Your task to perform on an android device: Search for macbook pro 13 inch on newegg.com, select the first entry, and add it to the cart. Image 0: 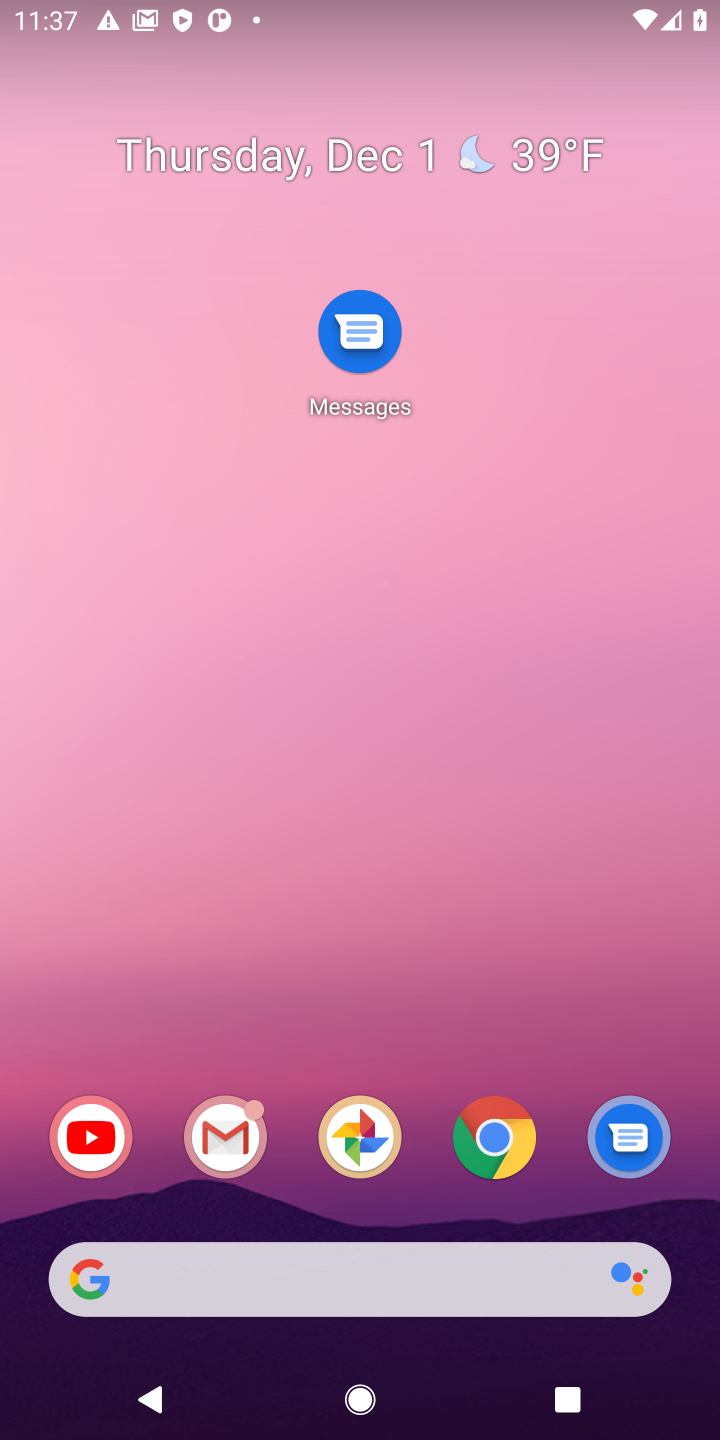
Step 0: drag from (331, 1277) to (360, 385)
Your task to perform on an android device: Search for macbook pro 13 inch on newegg.com, select the first entry, and add it to the cart. Image 1: 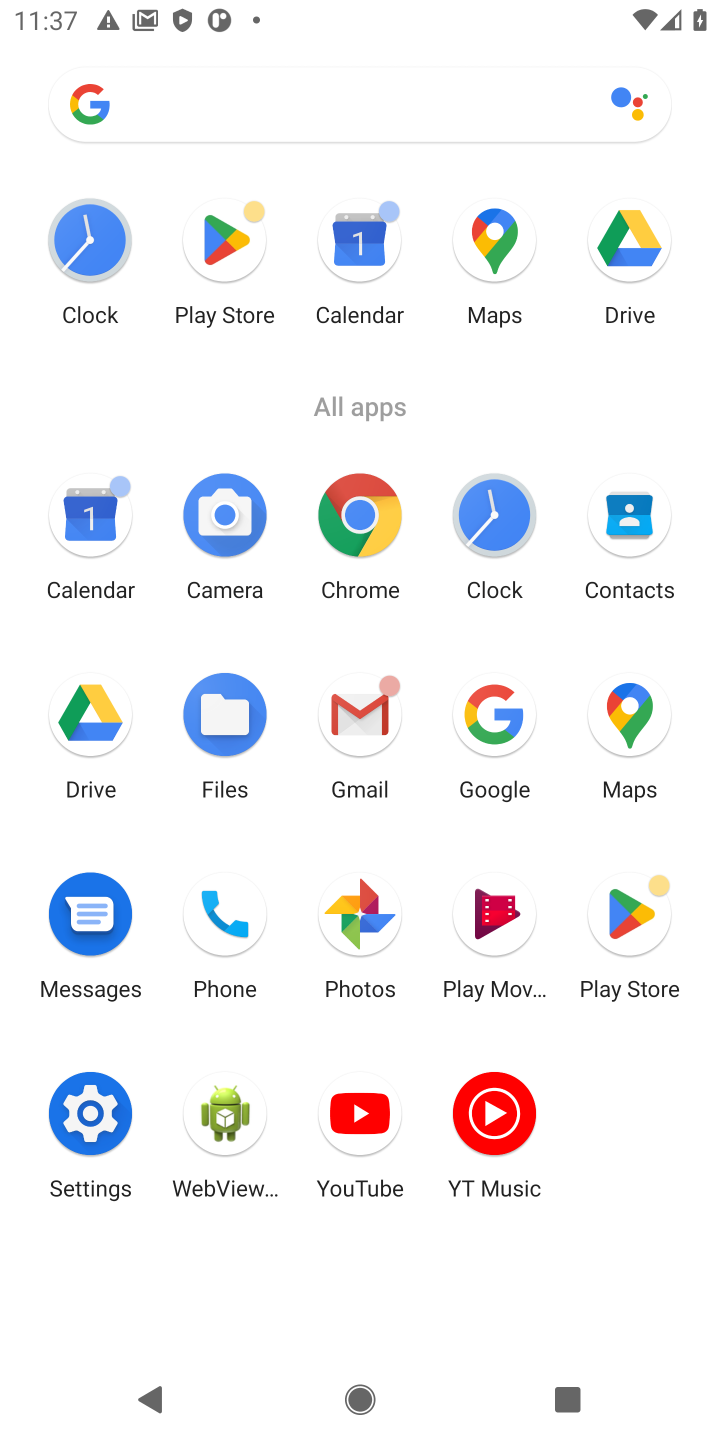
Step 1: click (505, 698)
Your task to perform on an android device: Search for macbook pro 13 inch on newegg.com, select the first entry, and add it to the cart. Image 2: 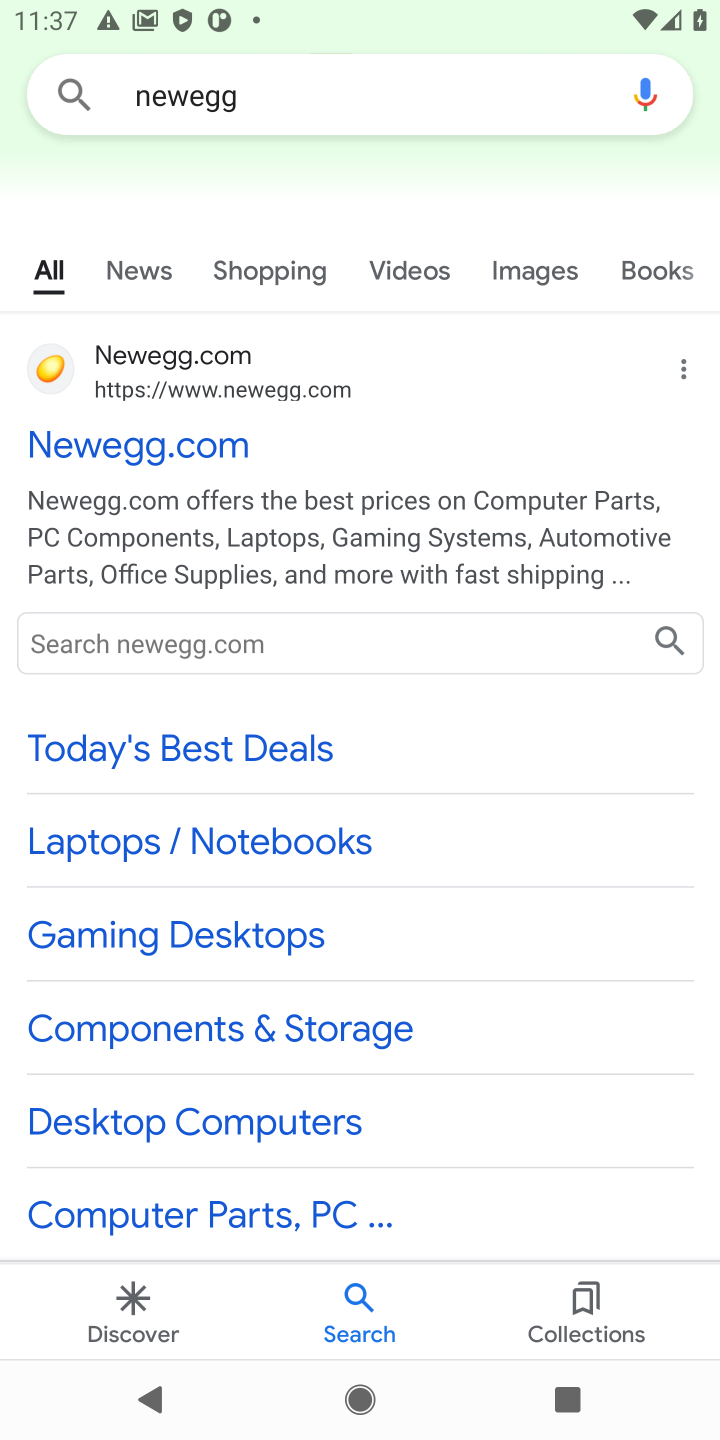
Step 2: click (107, 450)
Your task to perform on an android device: Search for macbook pro 13 inch on newegg.com, select the first entry, and add it to the cart. Image 3: 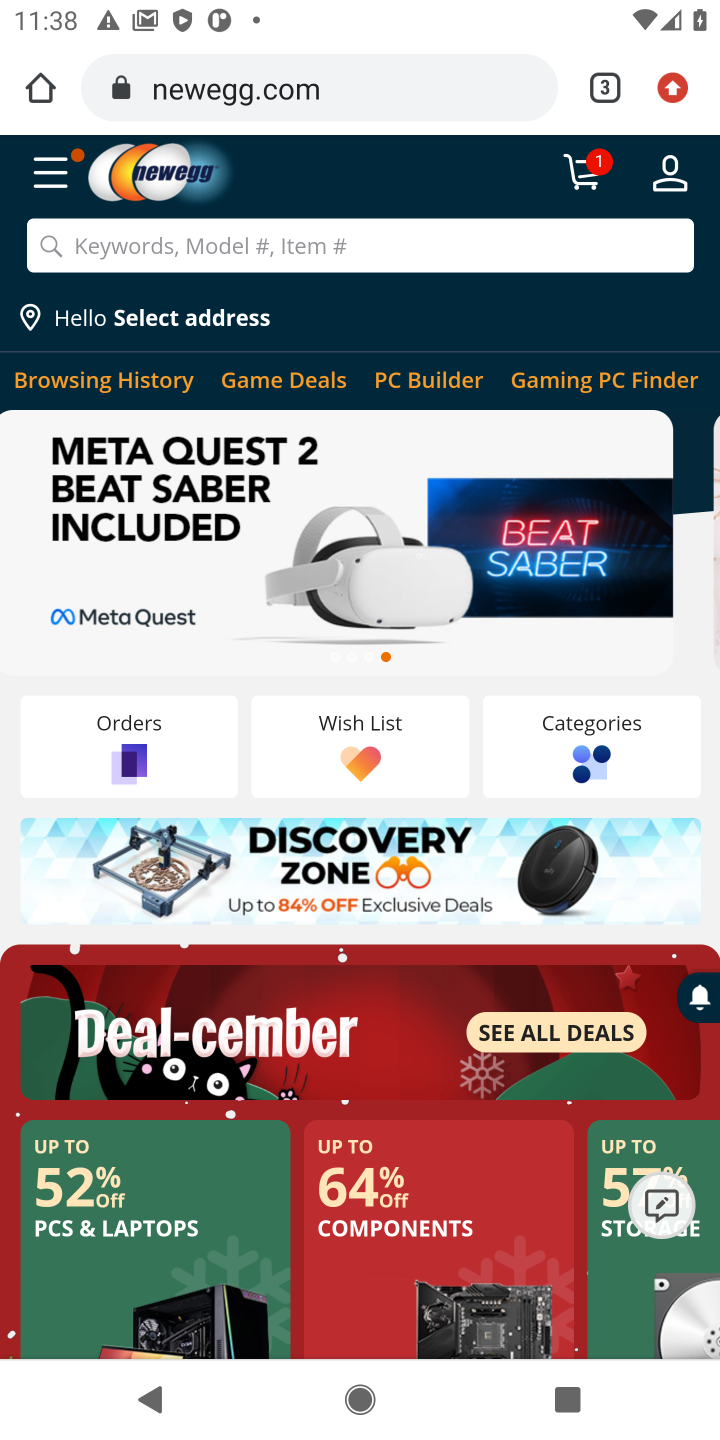
Step 3: click (103, 248)
Your task to perform on an android device: Search for macbook pro 13 inch on newegg.com, select the first entry, and add it to the cart. Image 4: 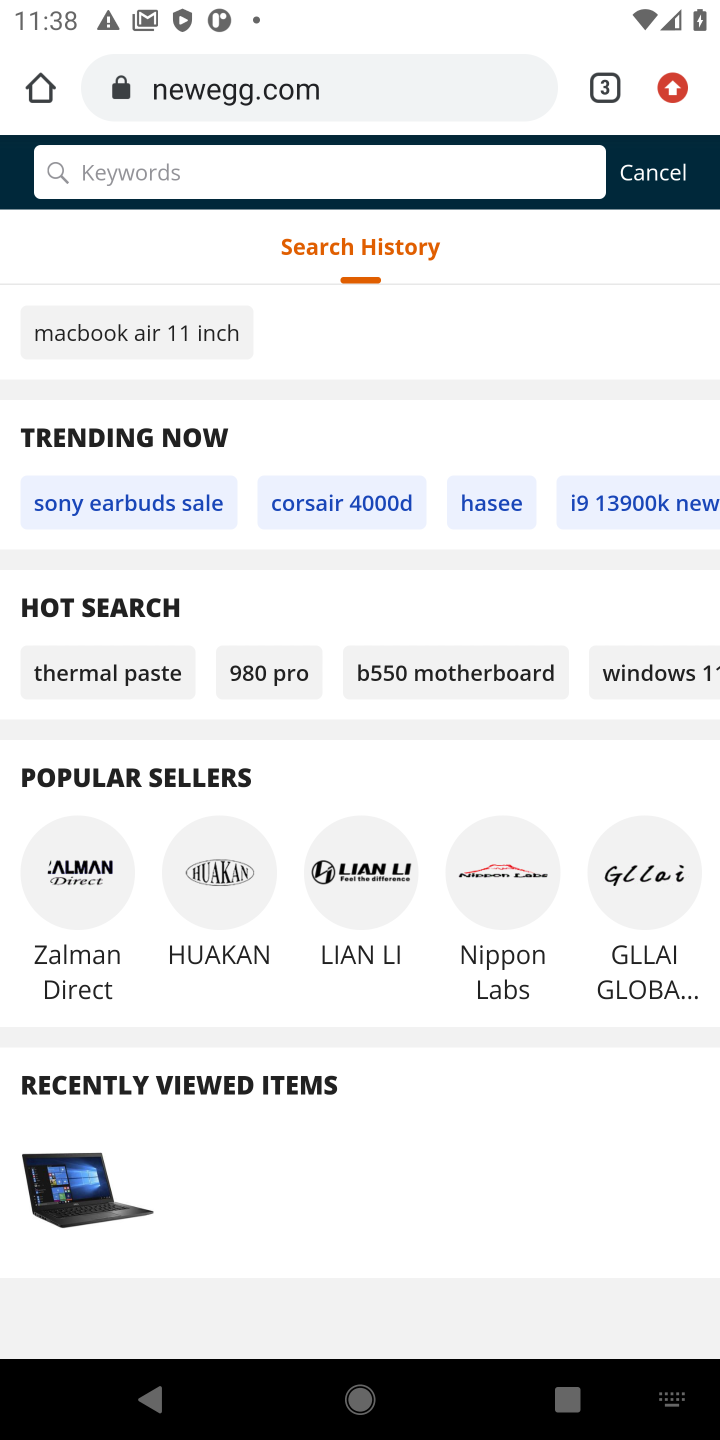
Step 4: type "macbook pro 13 inch"
Your task to perform on an android device: Search for macbook pro 13 inch on newegg.com, select the first entry, and add it to the cart. Image 5: 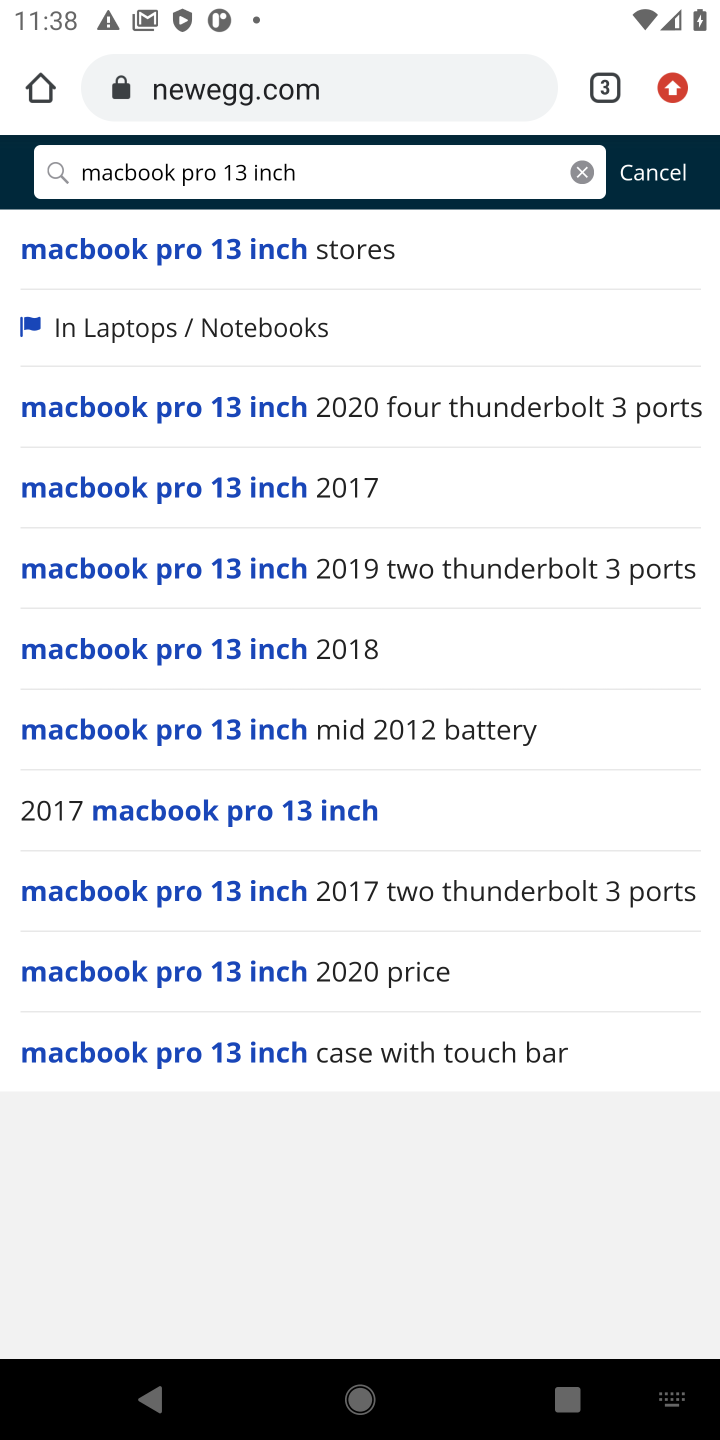
Step 5: click (269, 261)
Your task to perform on an android device: Search for macbook pro 13 inch on newegg.com, select the first entry, and add it to the cart. Image 6: 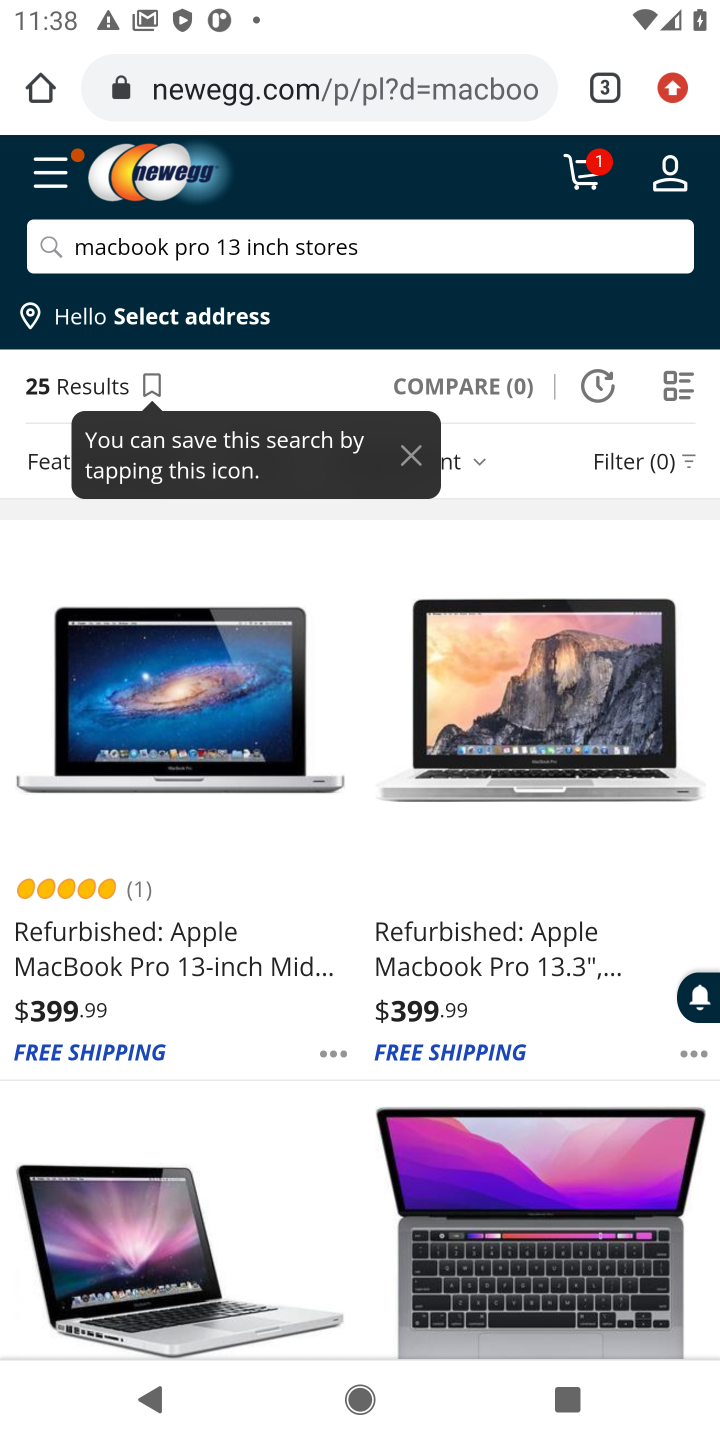
Step 6: click (97, 740)
Your task to perform on an android device: Search for macbook pro 13 inch on newegg.com, select the first entry, and add it to the cart. Image 7: 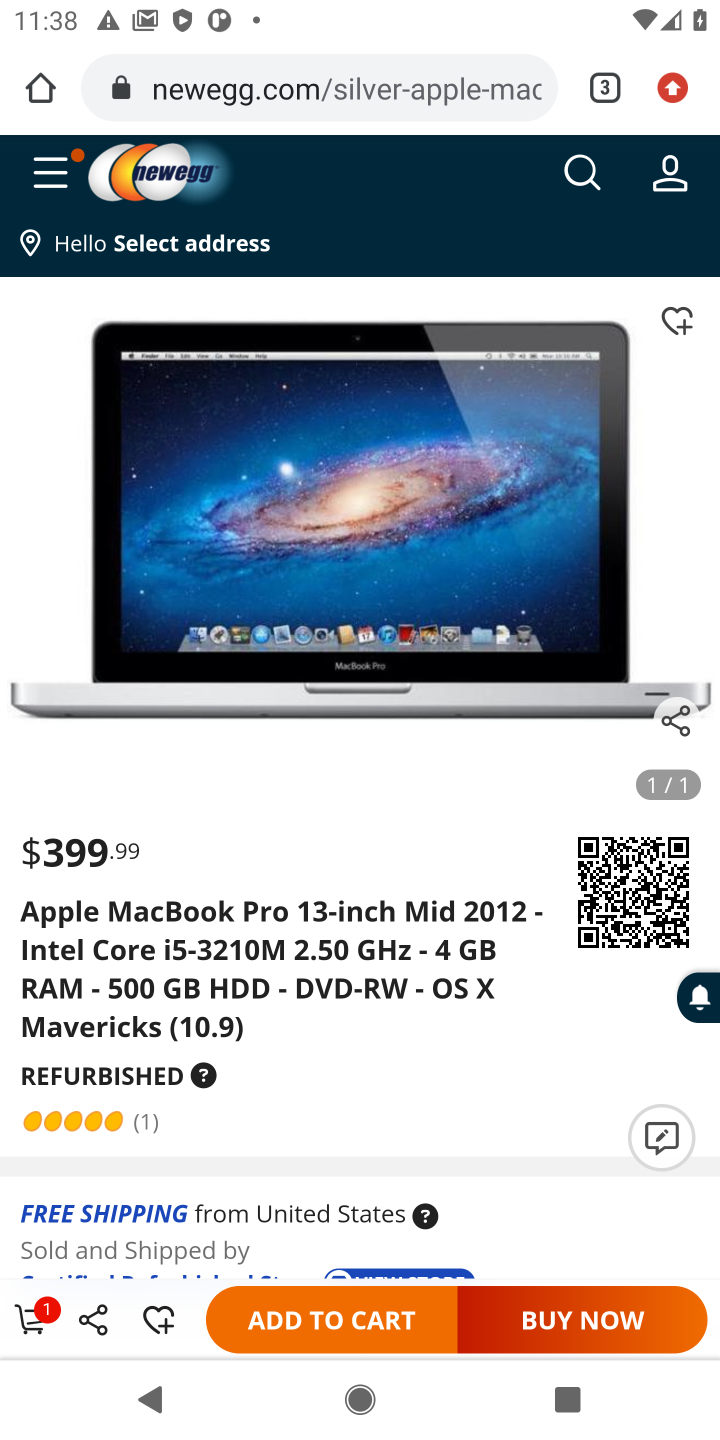
Step 7: click (358, 1326)
Your task to perform on an android device: Search for macbook pro 13 inch on newegg.com, select the first entry, and add it to the cart. Image 8: 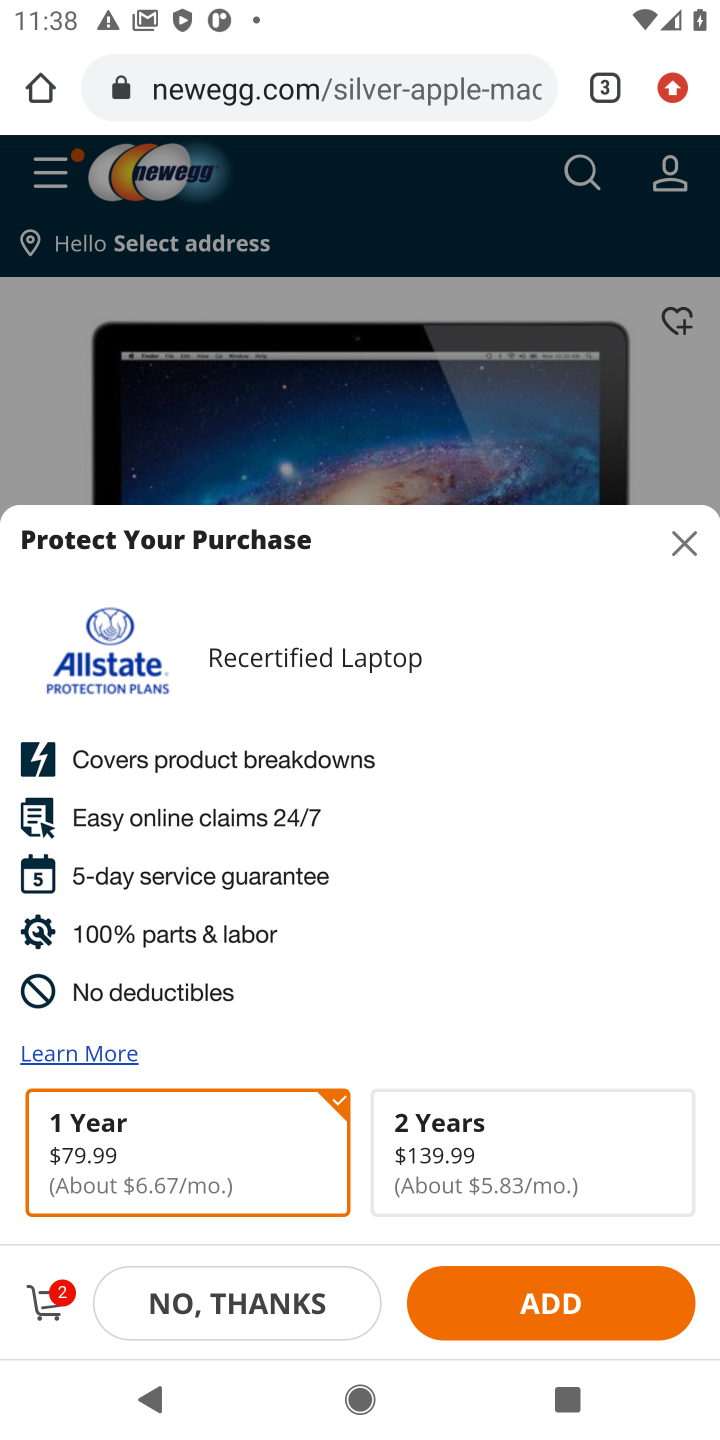
Step 8: click (574, 1302)
Your task to perform on an android device: Search for macbook pro 13 inch on newegg.com, select the first entry, and add it to the cart. Image 9: 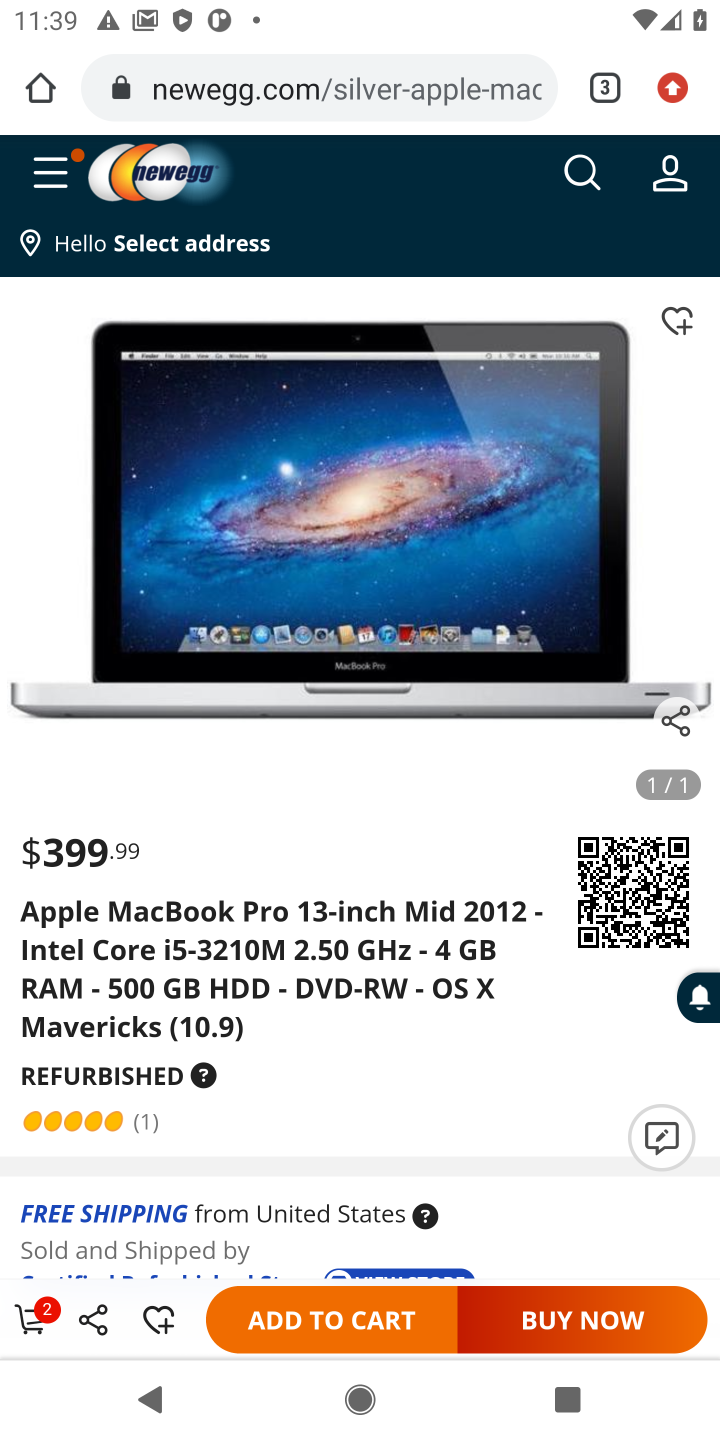
Step 9: task complete